Your task to perform on an android device: Clear the cart on walmart.com. Search for rayovac triple a on walmart.com, select the first entry, and add it to the cart. Image 0: 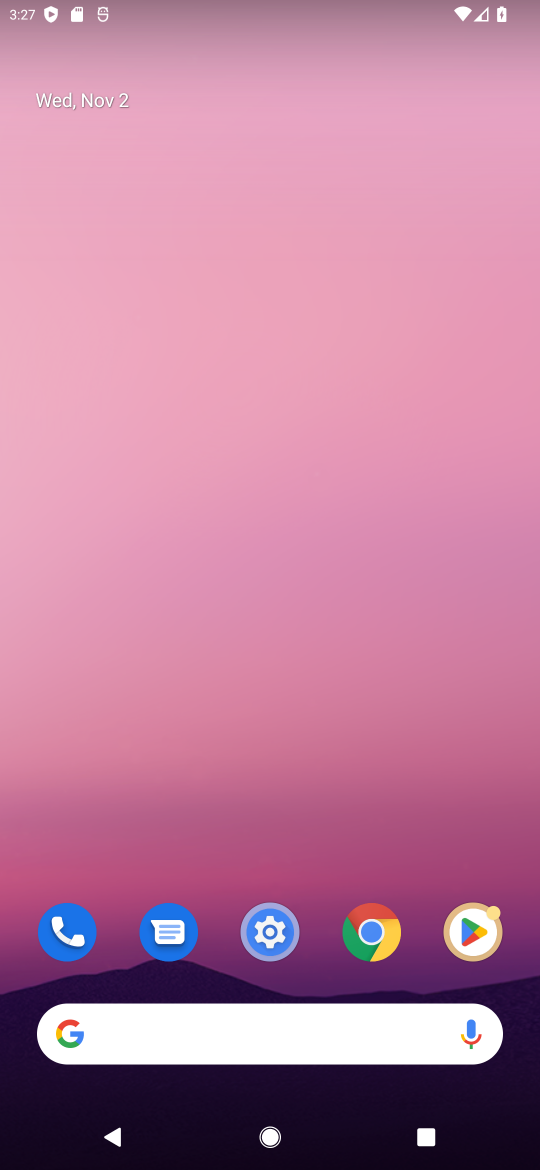
Step 0: click (362, 921)
Your task to perform on an android device: Clear the cart on walmart.com. Search for rayovac triple a on walmart.com, select the first entry, and add it to the cart. Image 1: 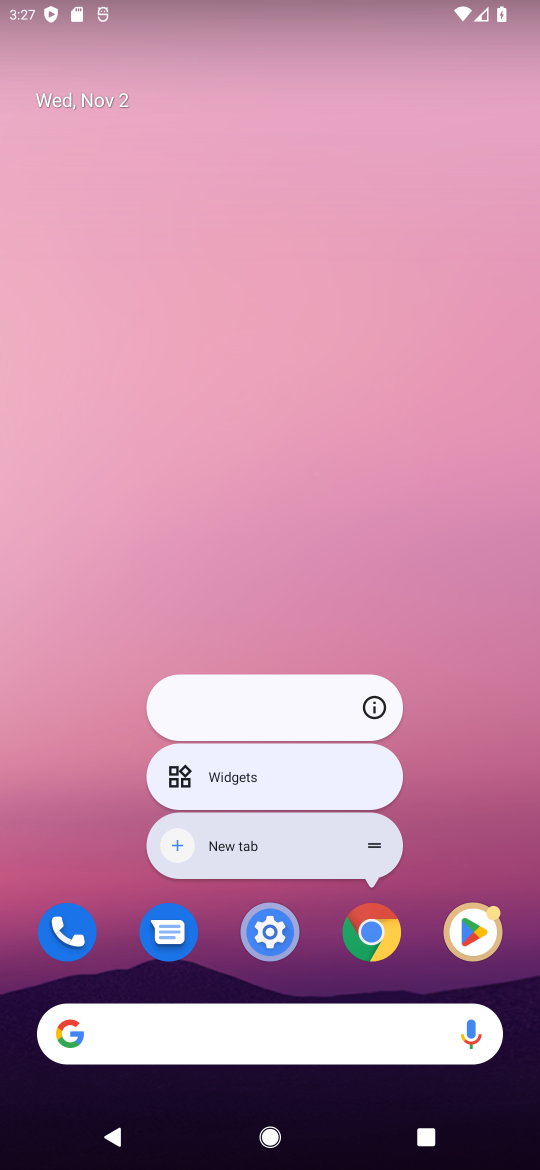
Step 1: click (365, 928)
Your task to perform on an android device: Clear the cart on walmart.com. Search for rayovac triple a on walmart.com, select the first entry, and add it to the cart. Image 2: 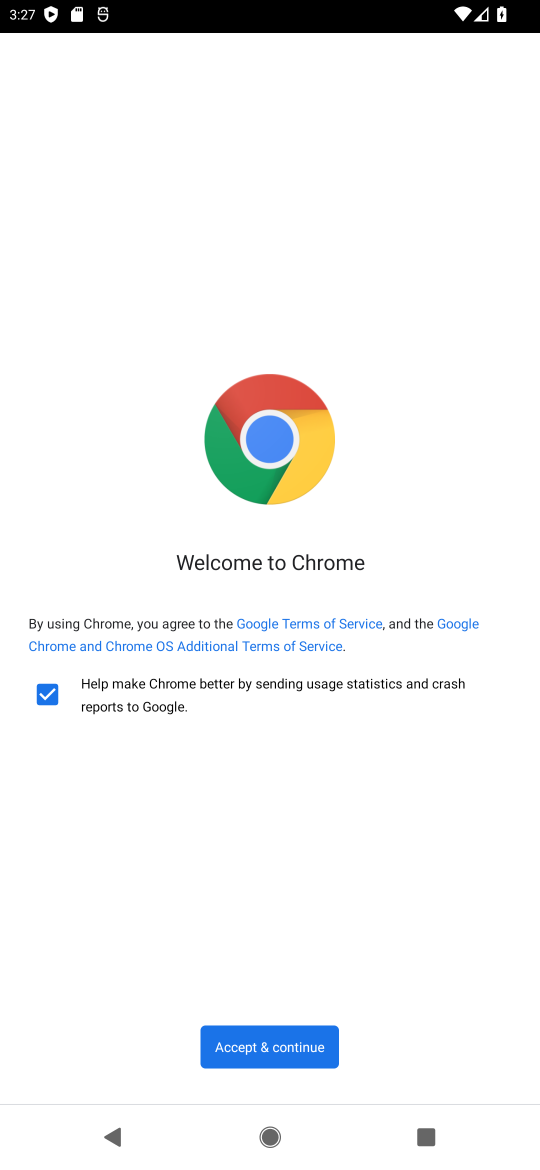
Step 2: click (269, 1040)
Your task to perform on an android device: Clear the cart on walmart.com. Search for rayovac triple a on walmart.com, select the first entry, and add it to the cart. Image 3: 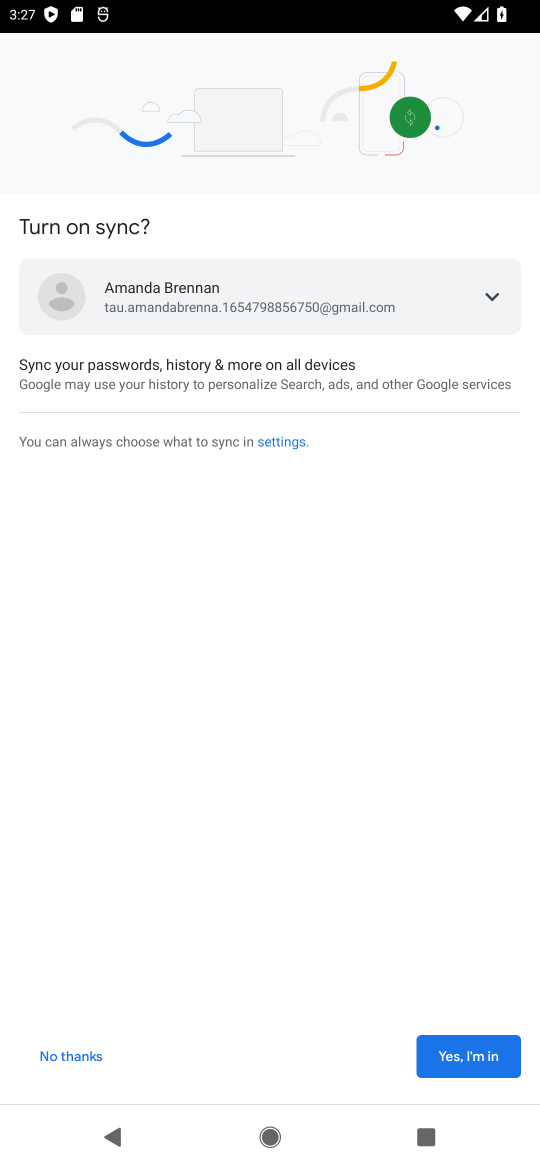
Step 3: click (466, 1058)
Your task to perform on an android device: Clear the cart on walmart.com. Search for rayovac triple a on walmart.com, select the first entry, and add it to the cart. Image 4: 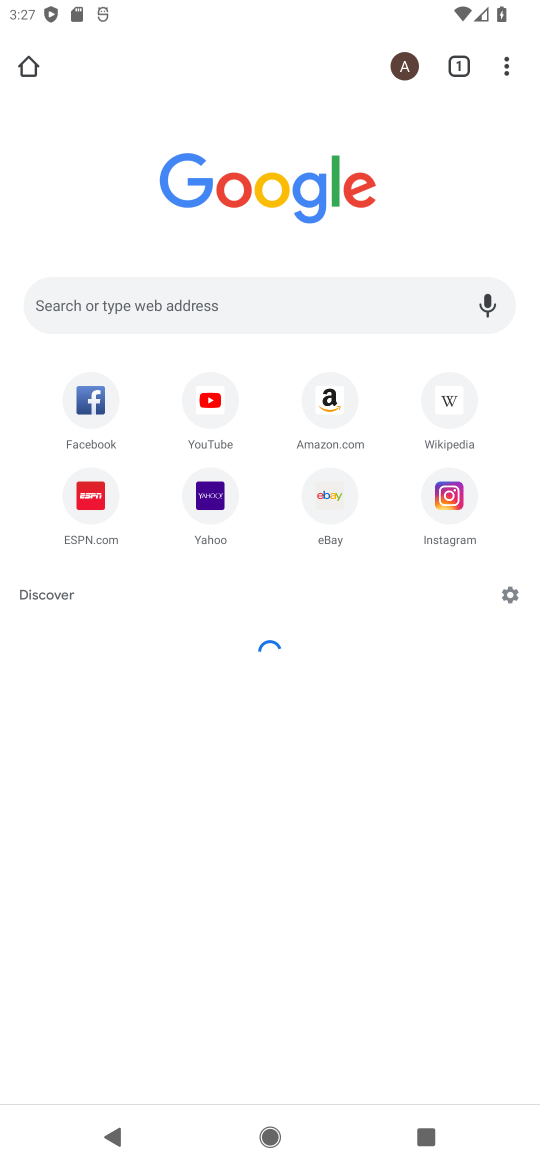
Step 4: click (280, 302)
Your task to perform on an android device: Clear the cart on walmart.com. Search for rayovac triple a on walmart.com, select the first entry, and add it to the cart. Image 5: 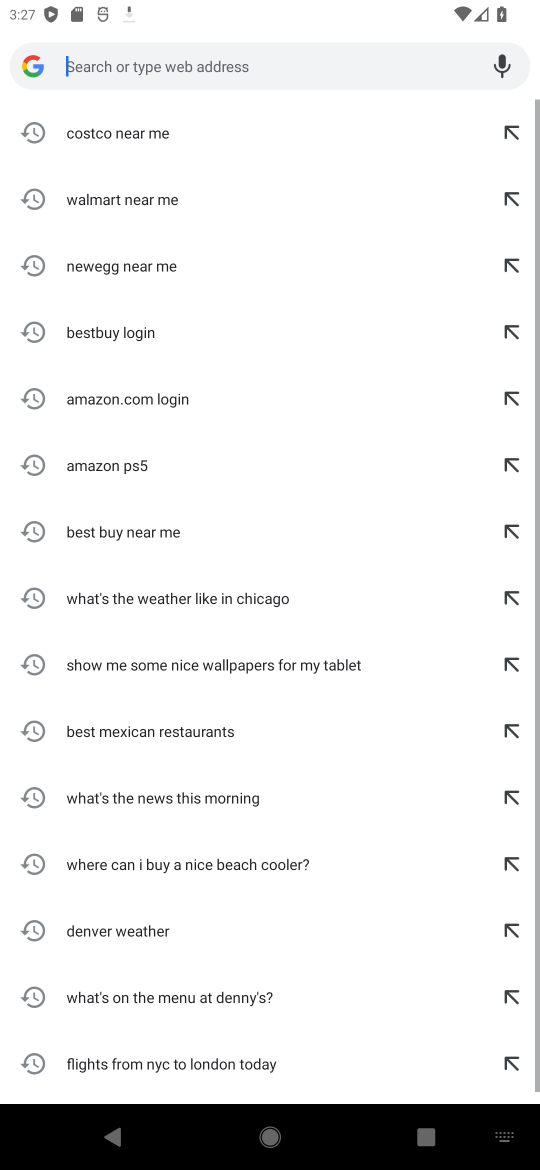
Step 5: type "walmart.com"
Your task to perform on an android device: Clear the cart on walmart.com. Search for rayovac triple a on walmart.com, select the first entry, and add it to the cart. Image 6: 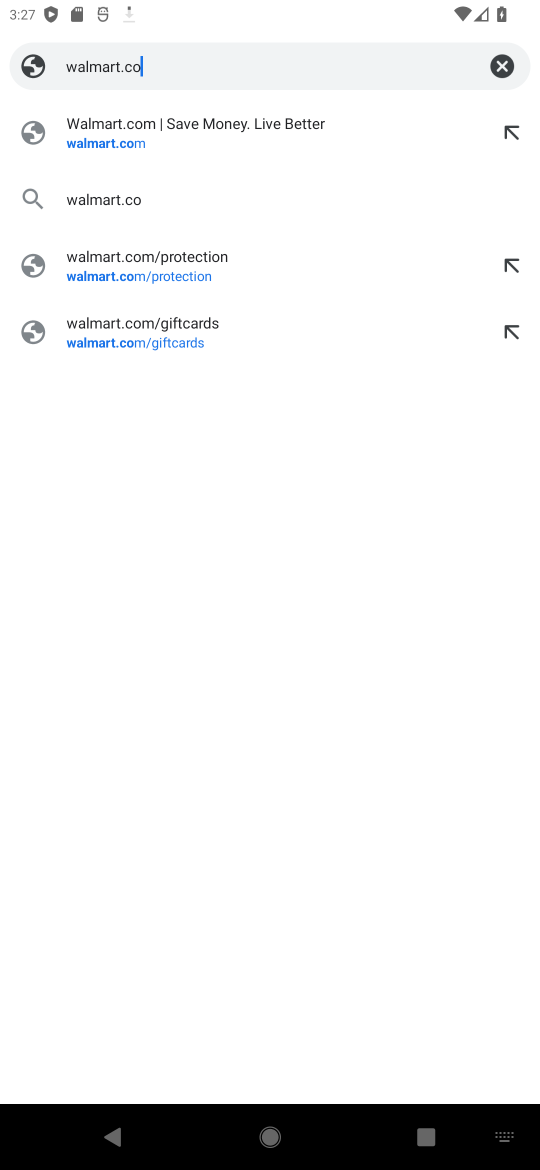
Step 6: press enter
Your task to perform on an android device: Clear the cart on walmart.com. Search for rayovac triple a on walmart.com, select the first entry, and add it to the cart. Image 7: 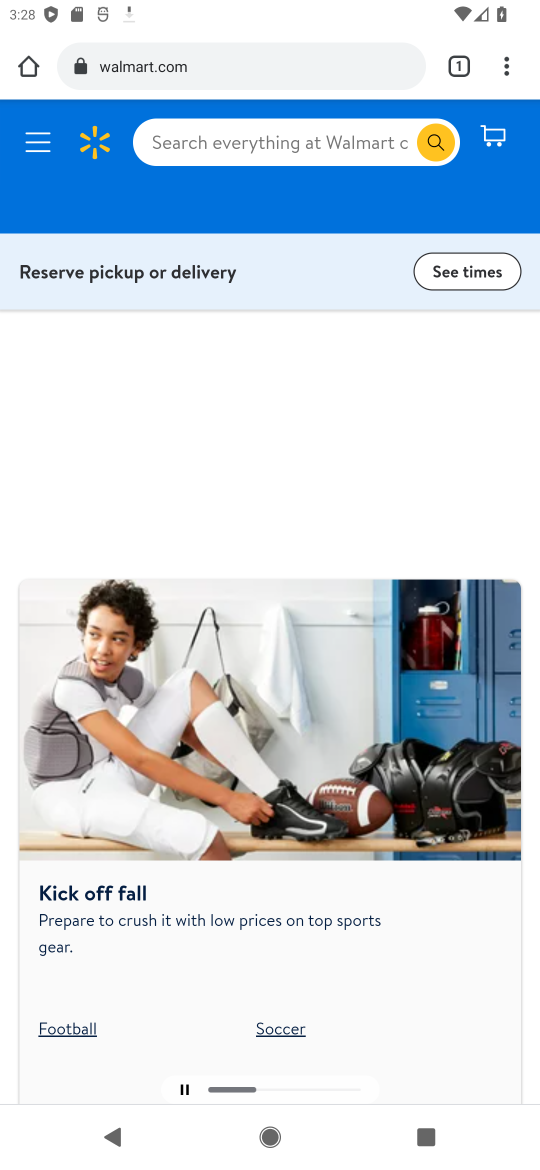
Step 7: click (486, 137)
Your task to perform on an android device: Clear the cart on walmart.com. Search for rayovac triple a on walmart.com, select the first entry, and add it to the cart. Image 8: 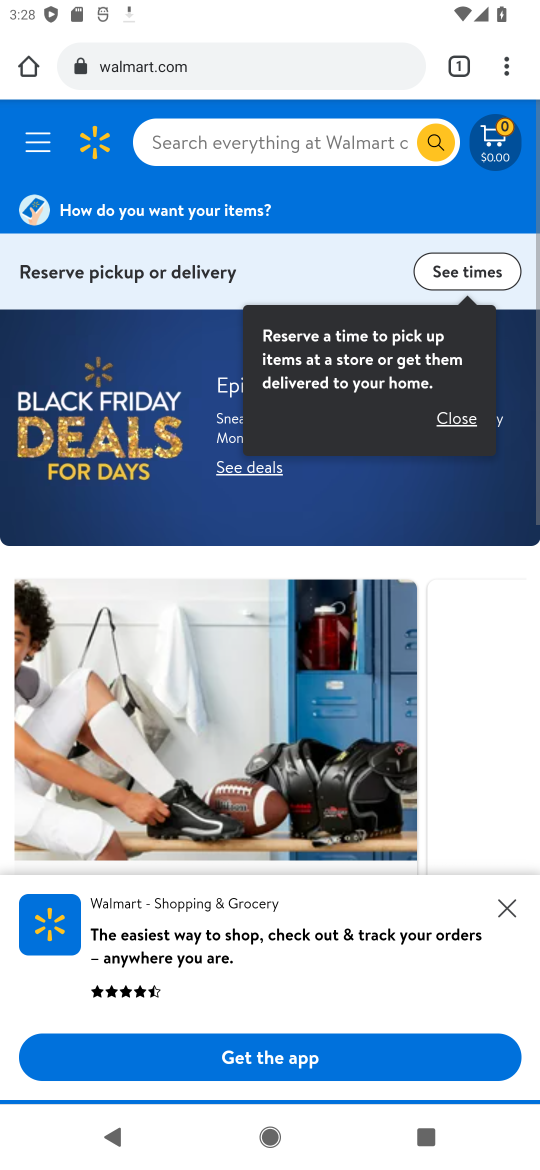
Step 8: click (215, 130)
Your task to perform on an android device: Clear the cart on walmart.com. Search for rayovac triple a on walmart.com, select the first entry, and add it to the cart. Image 9: 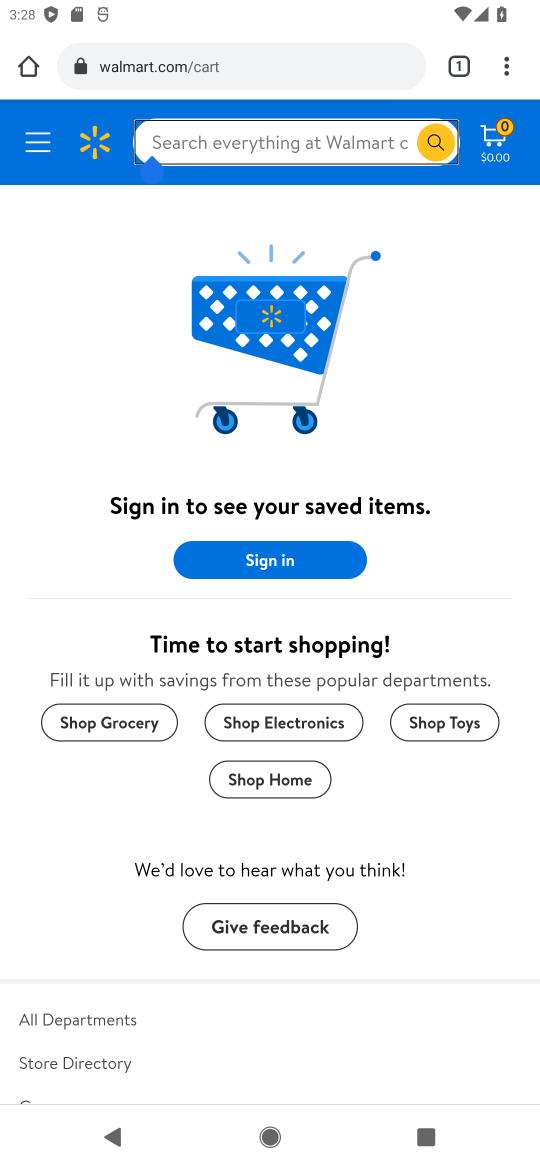
Step 9: type "rayovac triple a"
Your task to perform on an android device: Clear the cart on walmart.com. Search for rayovac triple a on walmart.com, select the first entry, and add it to the cart. Image 10: 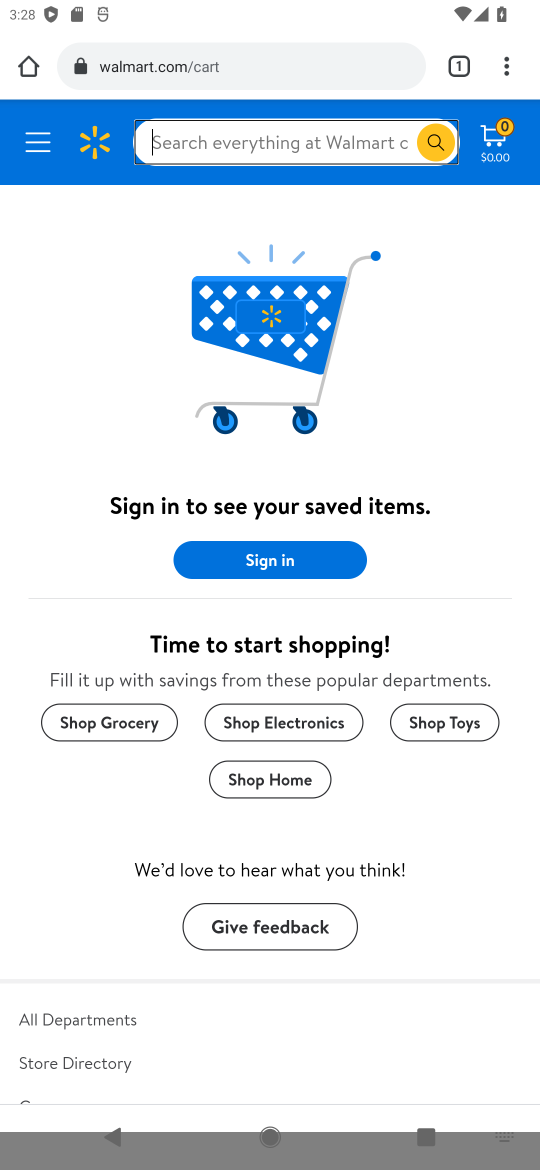
Step 10: press enter
Your task to perform on an android device: Clear the cart on walmart.com. Search for rayovac triple a on walmart.com, select the first entry, and add it to the cart. Image 11: 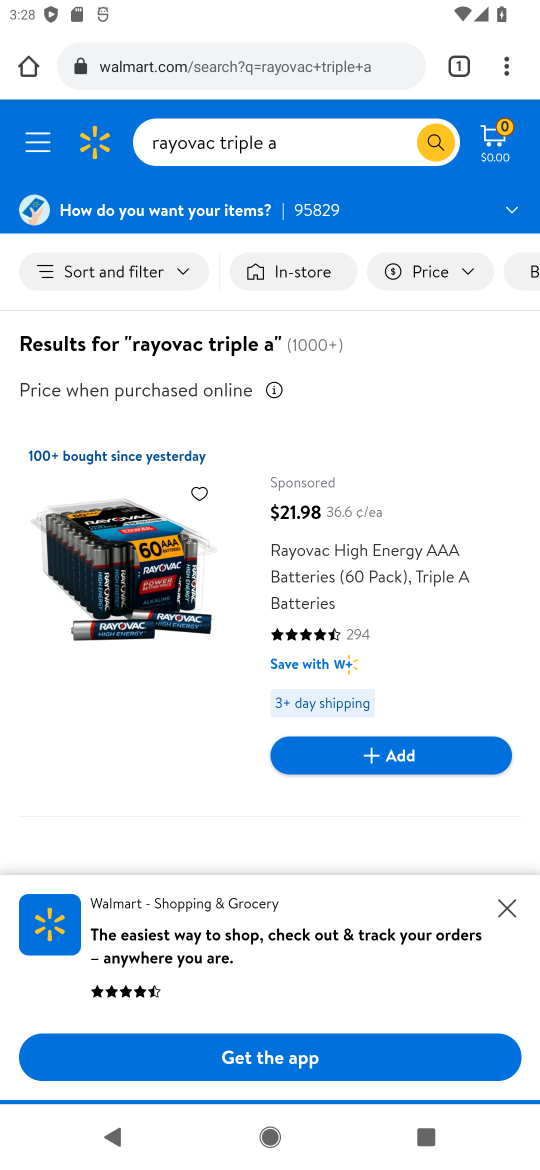
Step 11: click (152, 651)
Your task to perform on an android device: Clear the cart on walmart.com. Search for rayovac triple a on walmart.com, select the first entry, and add it to the cart. Image 12: 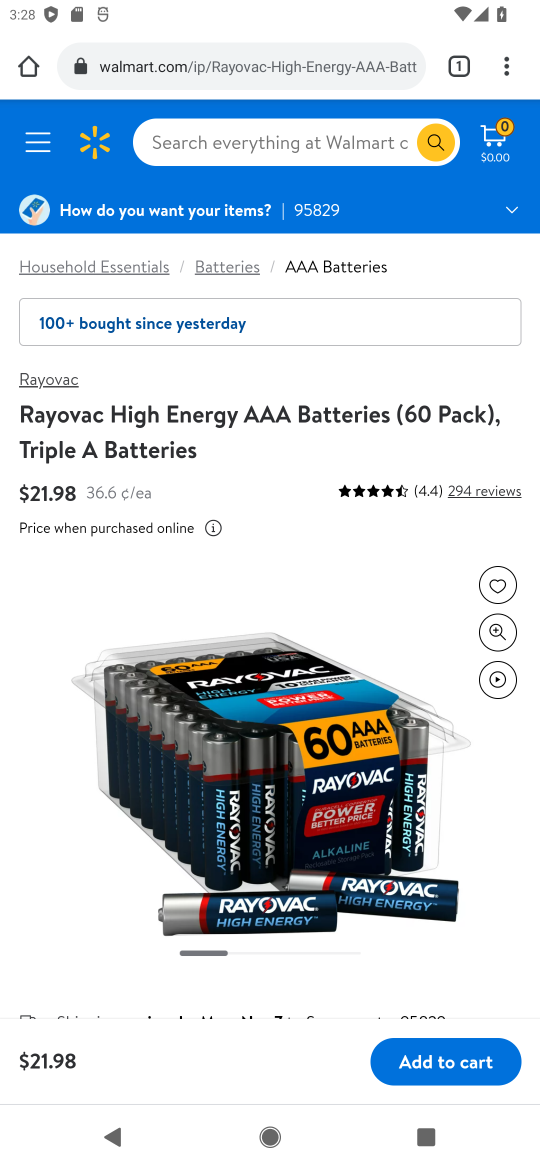
Step 12: click (474, 1064)
Your task to perform on an android device: Clear the cart on walmart.com. Search for rayovac triple a on walmart.com, select the first entry, and add it to the cart. Image 13: 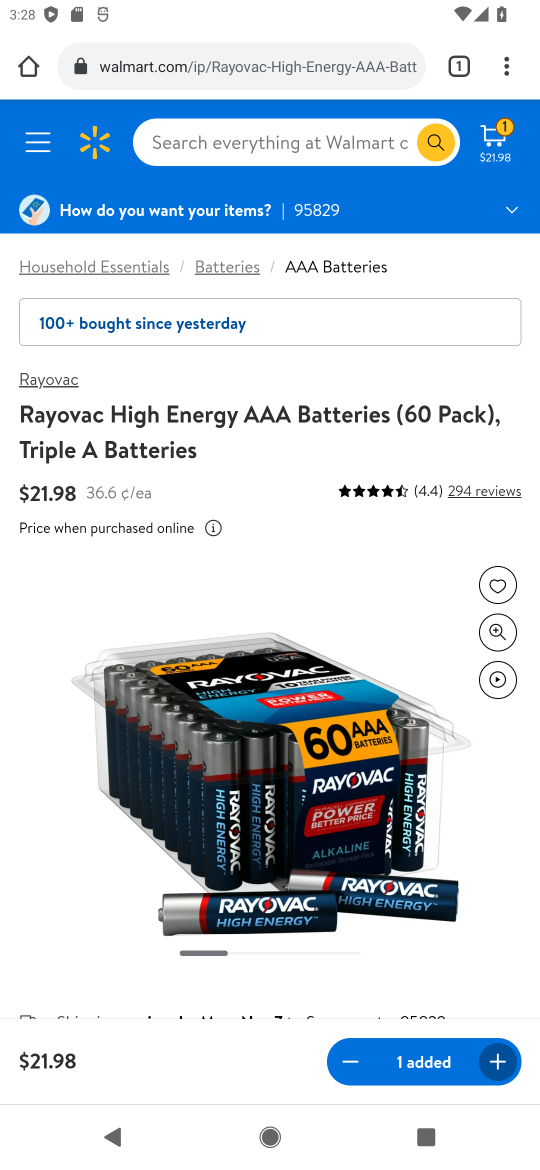
Step 13: task complete